Your task to perform on an android device: toggle location history Image 0: 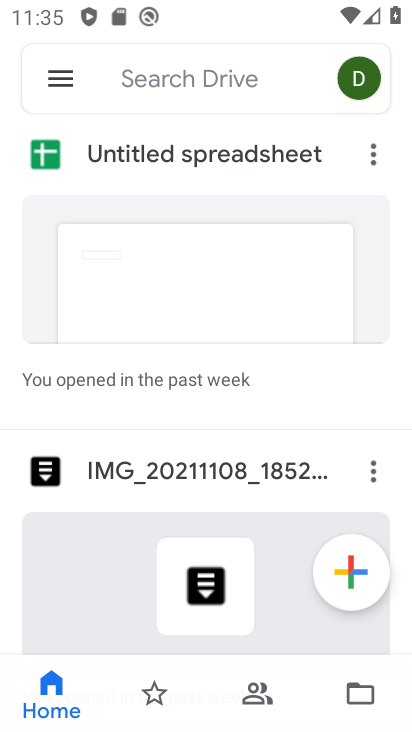
Step 0: task complete